Your task to perform on an android device: Play the last video I watched on Youtube Image 0: 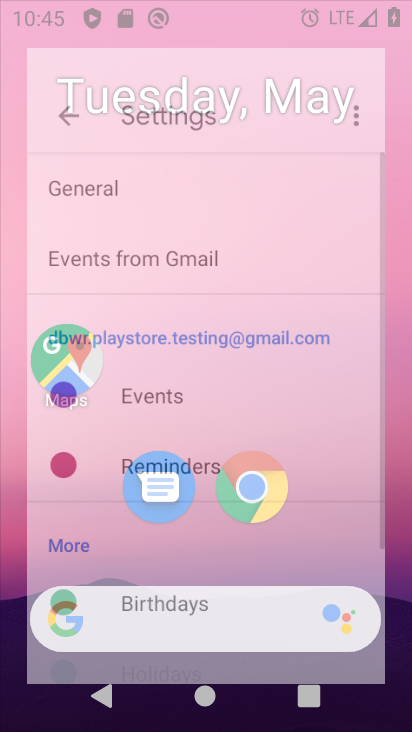
Step 0: drag from (208, 536) to (278, 209)
Your task to perform on an android device: Play the last video I watched on Youtube Image 1: 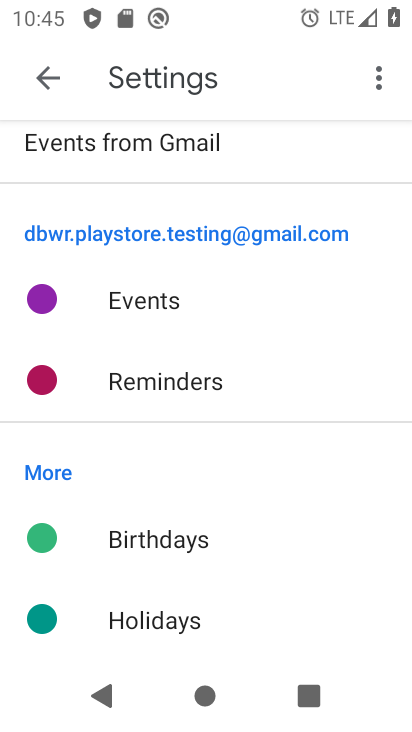
Step 1: drag from (219, 615) to (235, 227)
Your task to perform on an android device: Play the last video I watched on Youtube Image 2: 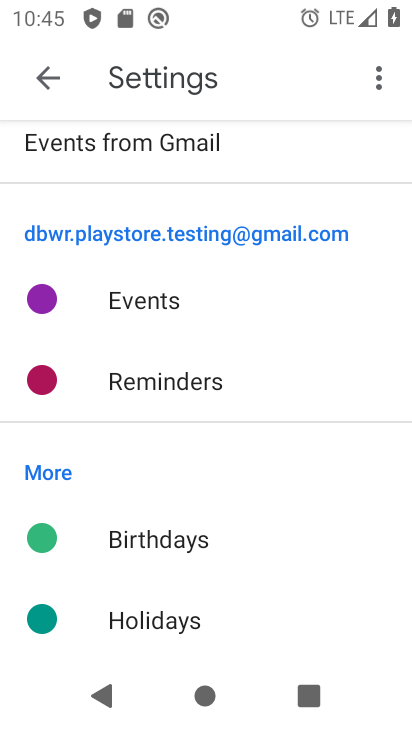
Step 2: drag from (207, 638) to (204, 251)
Your task to perform on an android device: Play the last video I watched on Youtube Image 3: 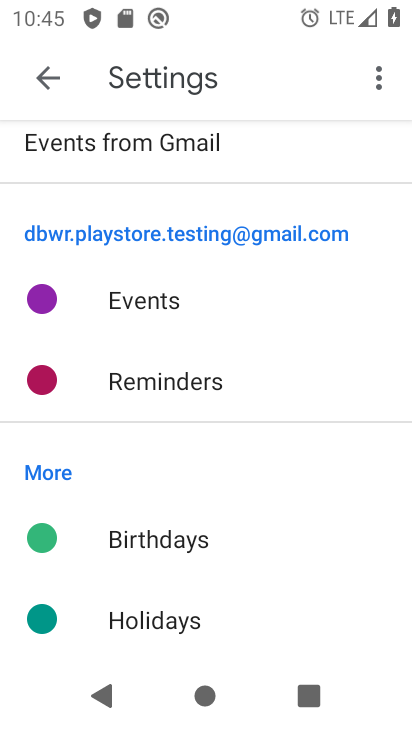
Step 3: drag from (218, 623) to (240, 122)
Your task to perform on an android device: Play the last video I watched on Youtube Image 4: 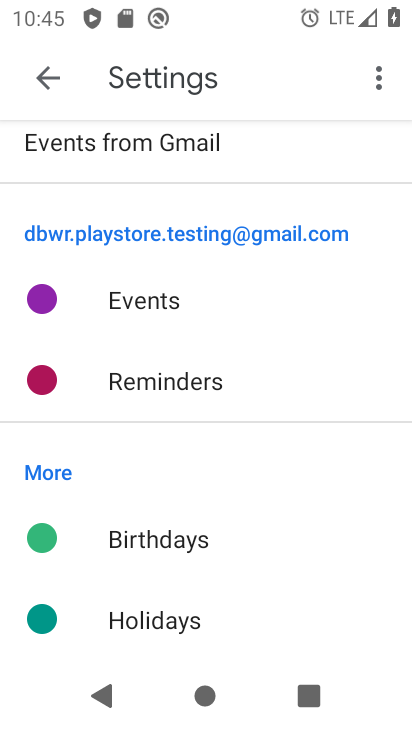
Step 4: drag from (166, 625) to (215, 315)
Your task to perform on an android device: Play the last video I watched on Youtube Image 5: 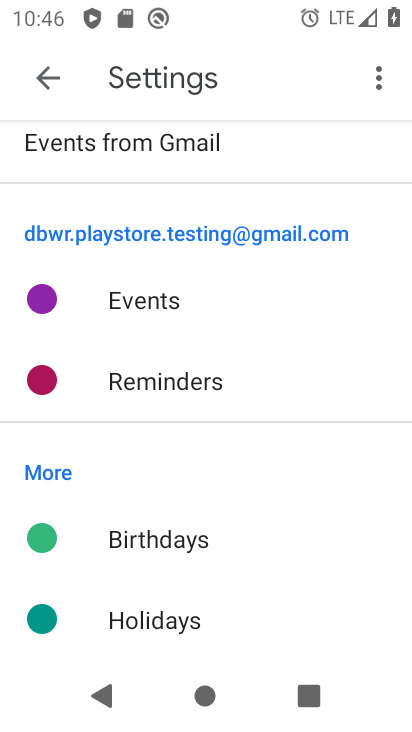
Step 5: drag from (215, 483) to (228, 74)
Your task to perform on an android device: Play the last video I watched on Youtube Image 6: 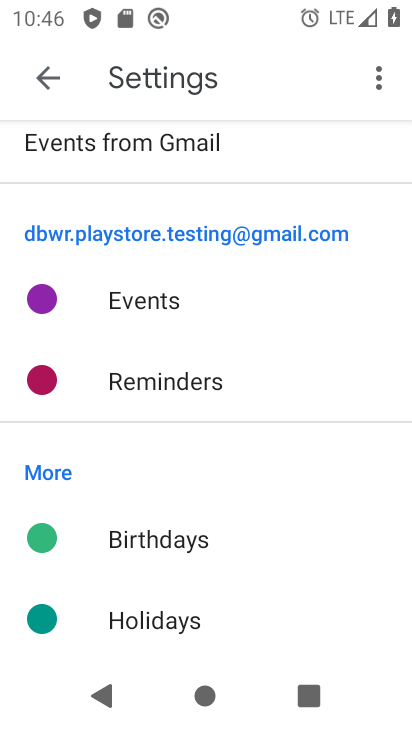
Step 6: press home button
Your task to perform on an android device: Play the last video I watched on Youtube Image 7: 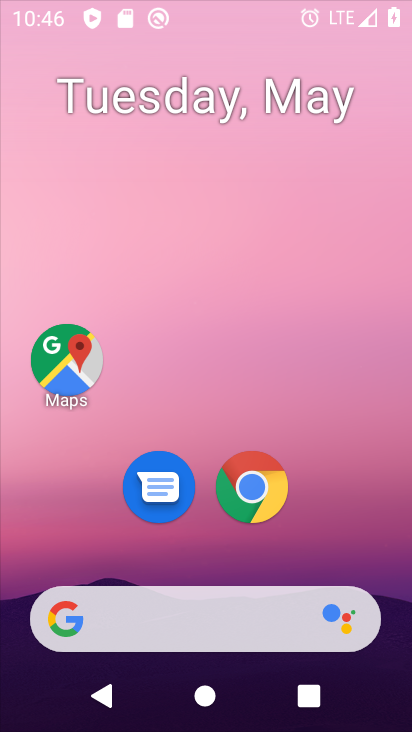
Step 7: drag from (192, 637) to (232, 54)
Your task to perform on an android device: Play the last video I watched on Youtube Image 8: 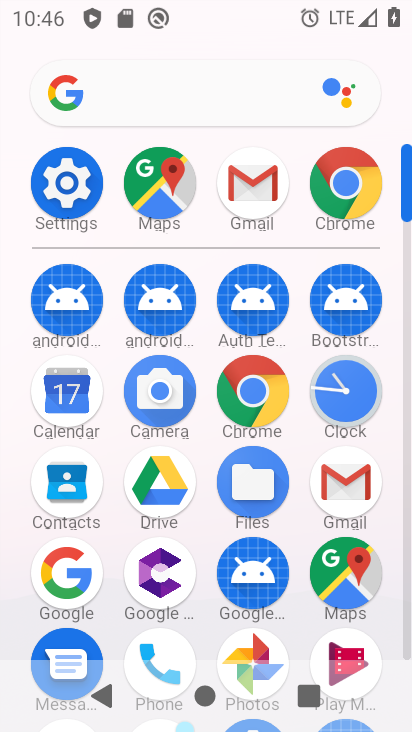
Step 8: drag from (198, 610) to (208, 117)
Your task to perform on an android device: Play the last video I watched on Youtube Image 9: 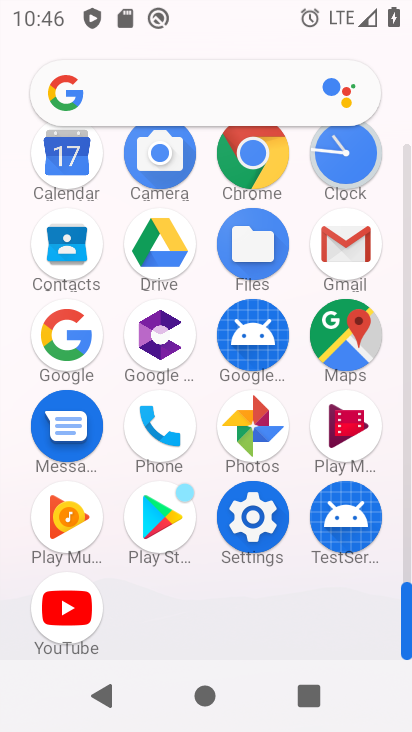
Step 9: click (76, 621)
Your task to perform on an android device: Play the last video I watched on Youtube Image 10: 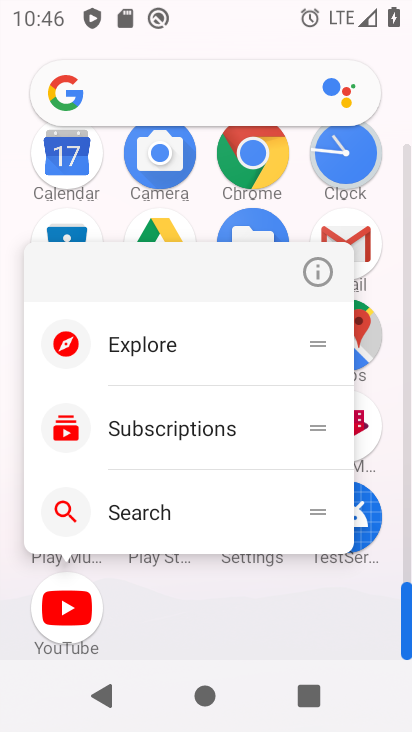
Step 10: click (315, 260)
Your task to perform on an android device: Play the last video I watched on Youtube Image 11: 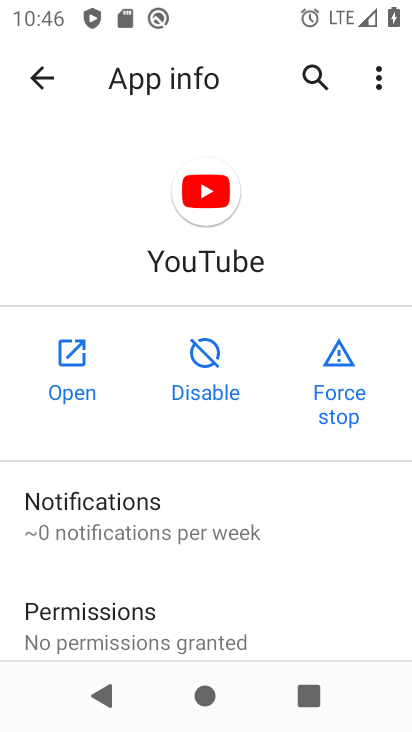
Step 11: click (89, 381)
Your task to perform on an android device: Play the last video I watched on Youtube Image 12: 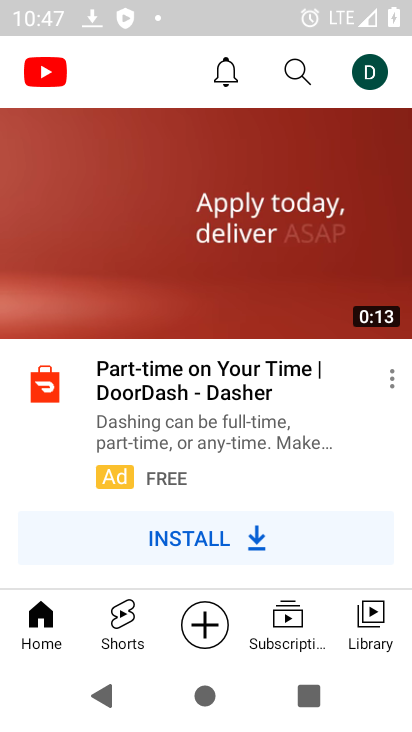
Step 12: drag from (250, 544) to (289, 251)
Your task to perform on an android device: Play the last video I watched on Youtube Image 13: 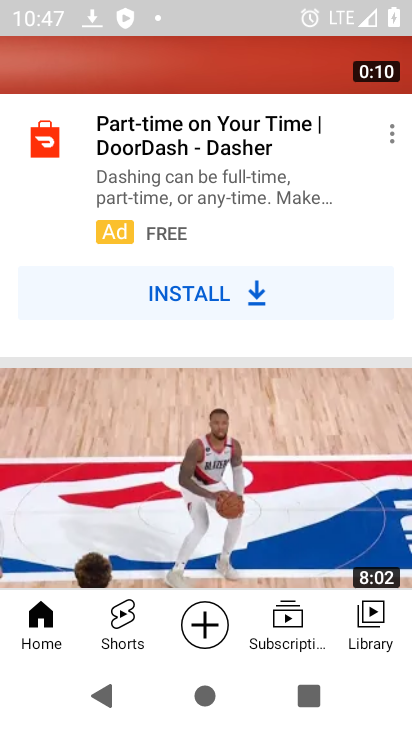
Step 13: drag from (278, 614) to (270, 195)
Your task to perform on an android device: Play the last video I watched on Youtube Image 14: 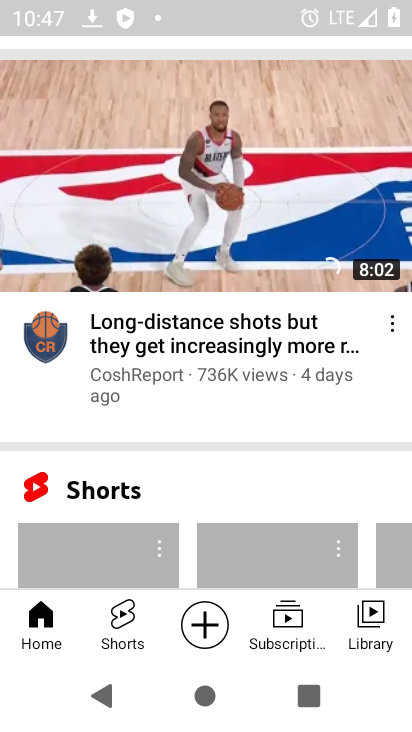
Step 14: drag from (295, 339) to (294, 218)
Your task to perform on an android device: Play the last video I watched on Youtube Image 15: 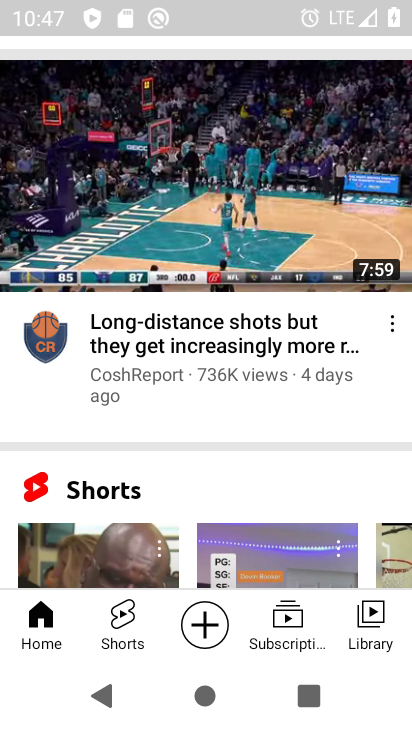
Step 15: drag from (297, 472) to (347, 194)
Your task to perform on an android device: Play the last video I watched on Youtube Image 16: 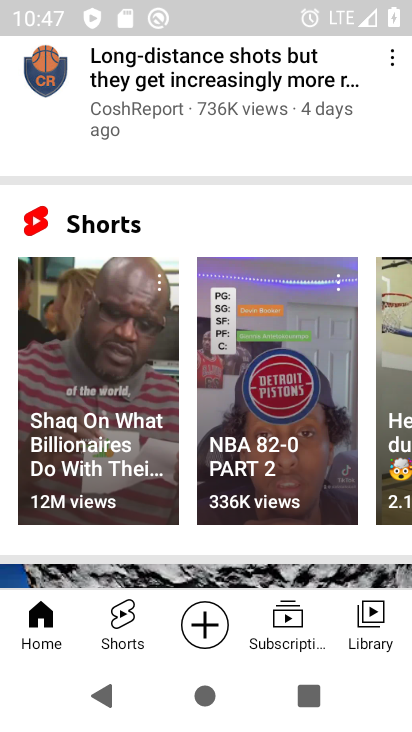
Step 16: click (373, 633)
Your task to perform on an android device: Play the last video I watched on Youtube Image 17: 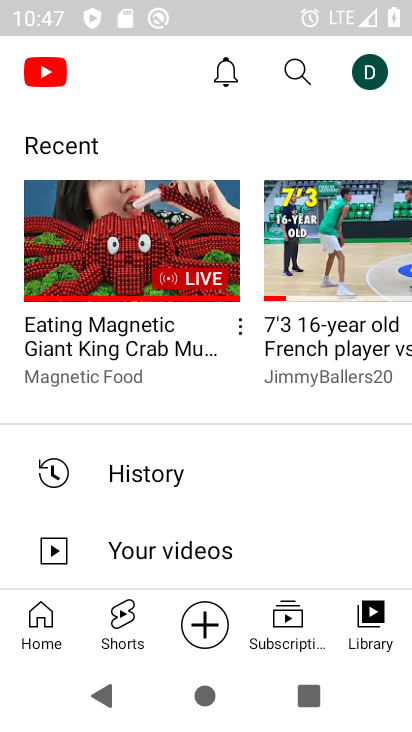
Step 17: click (110, 252)
Your task to perform on an android device: Play the last video I watched on Youtube Image 18: 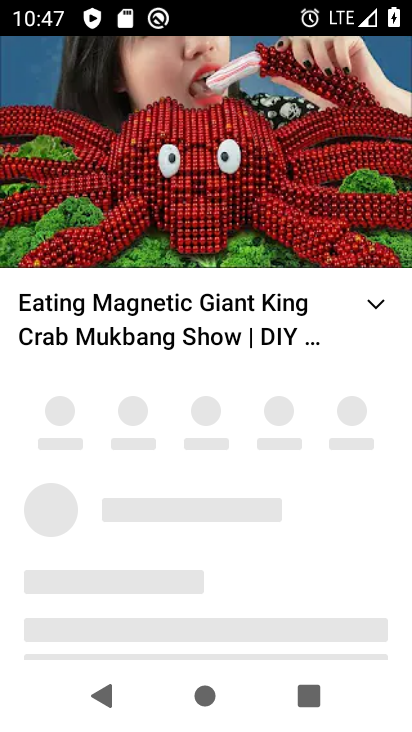
Step 18: task complete